Your task to perform on an android device: set the stopwatch Image 0: 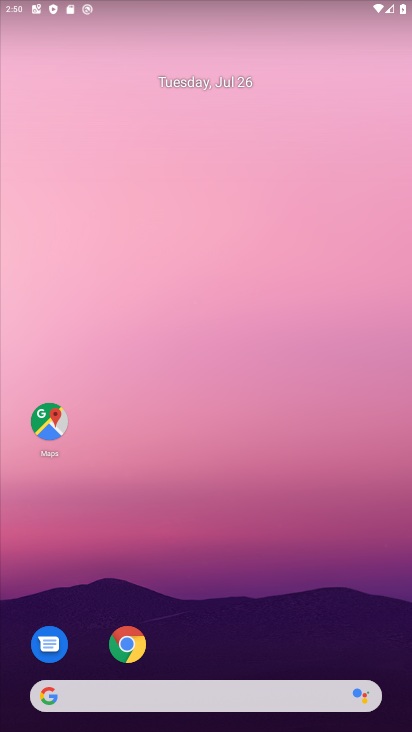
Step 0: drag from (221, 693) to (224, 148)
Your task to perform on an android device: set the stopwatch Image 1: 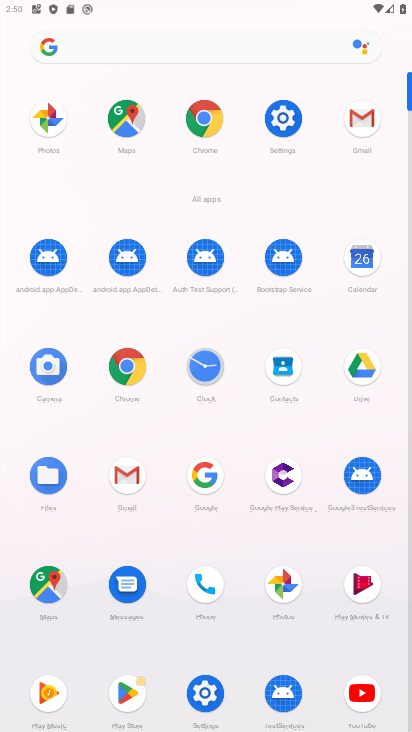
Step 1: click (218, 373)
Your task to perform on an android device: set the stopwatch Image 2: 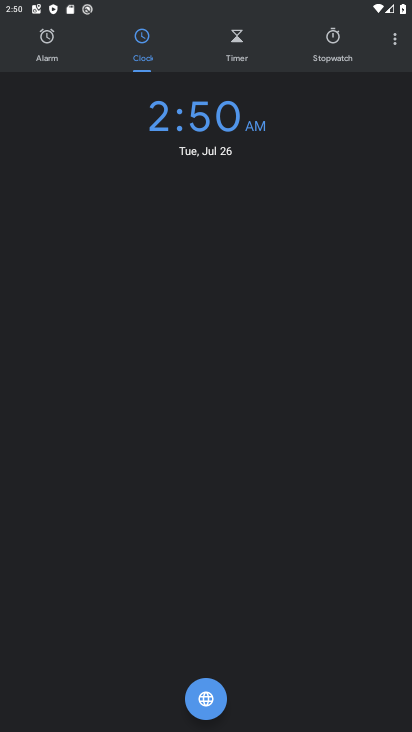
Step 2: click (328, 50)
Your task to perform on an android device: set the stopwatch Image 3: 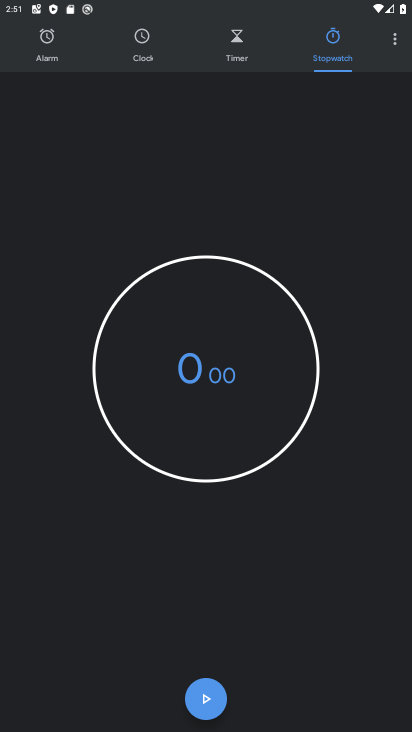
Step 3: task complete